Your task to perform on an android device: Go to internet settings Image 0: 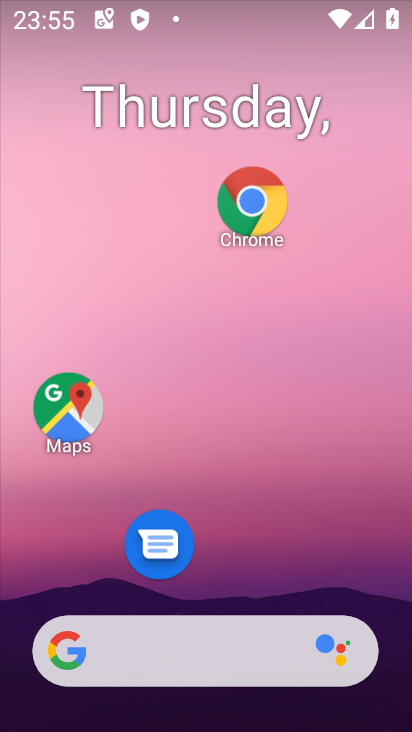
Step 0: drag from (223, 590) to (228, 60)
Your task to perform on an android device: Go to internet settings Image 1: 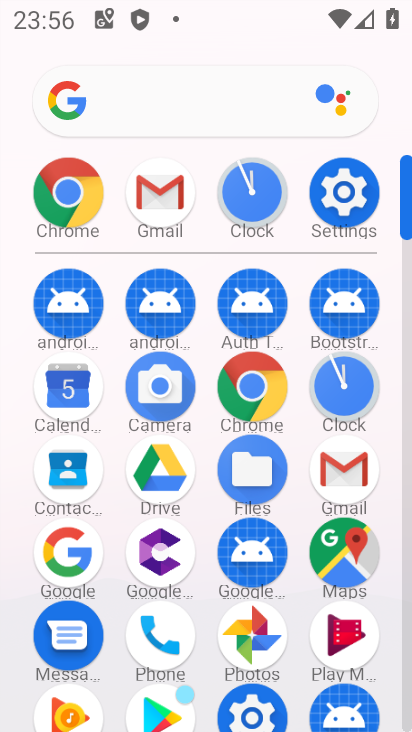
Step 1: press home button
Your task to perform on an android device: Go to internet settings Image 2: 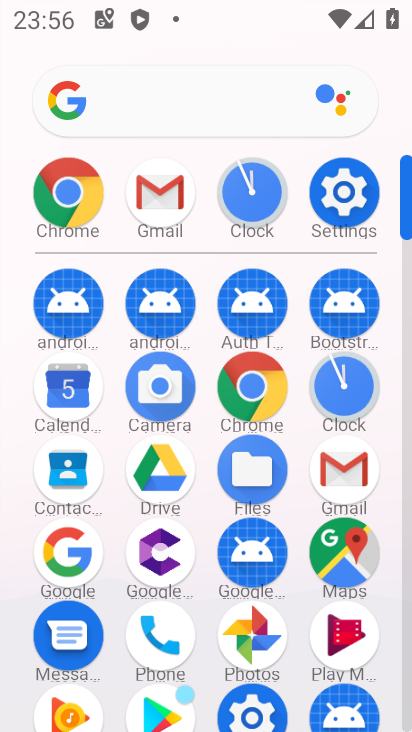
Step 2: press home button
Your task to perform on an android device: Go to internet settings Image 3: 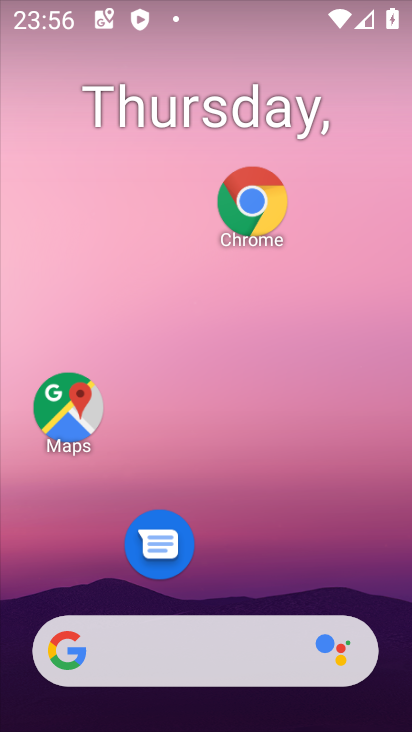
Step 3: drag from (224, 593) to (234, 51)
Your task to perform on an android device: Go to internet settings Image 4: 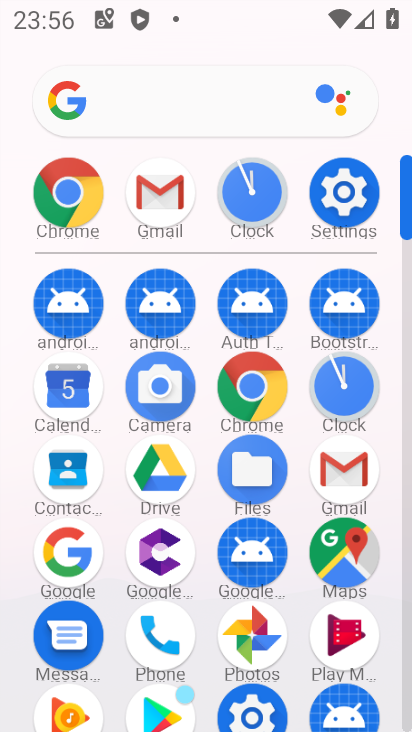
Step 4: click (341, 185)
Your task to perform on an android device: Go to internet settings Image 5: 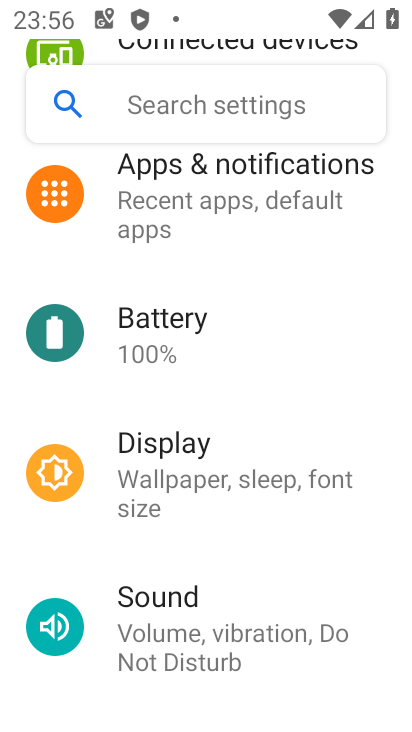
Step 5: drag from (193, 421) to (282, 730)
Your task to perform on an android device: Go to internet settings Image 6: 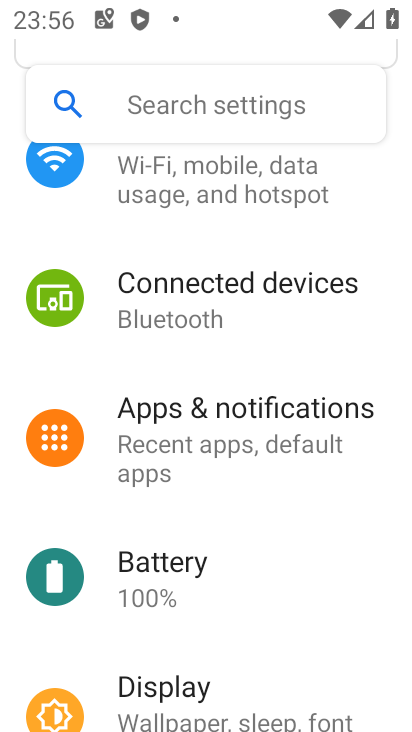
Step 6: click (191, 189)
Your task to perform on an android device: Go to internet settings Image 7: 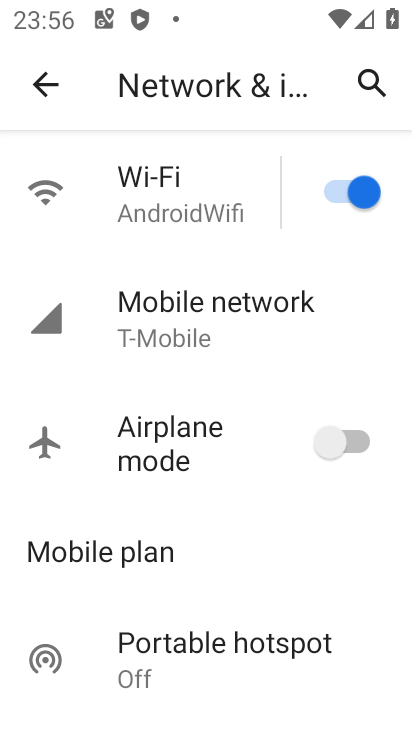
Step 7: drag from (161, 654) to (152, 121)
Your task to perform on an android device: Go to internet settings Image 8: 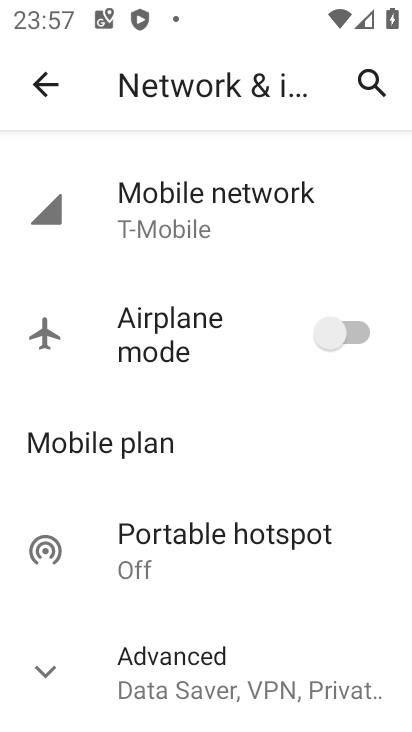
Step 8: click (48, 668)
Your task to perform on an android device: Go to internet settings Image 9: 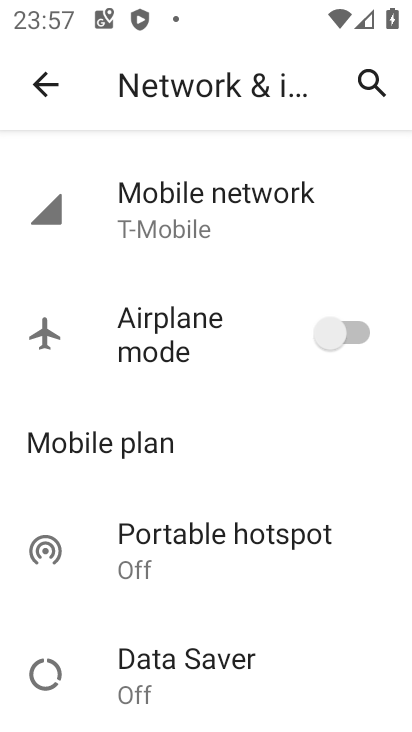
Step 9: task complete